Your task to perform on an android device: Open Google Maps Image 0: 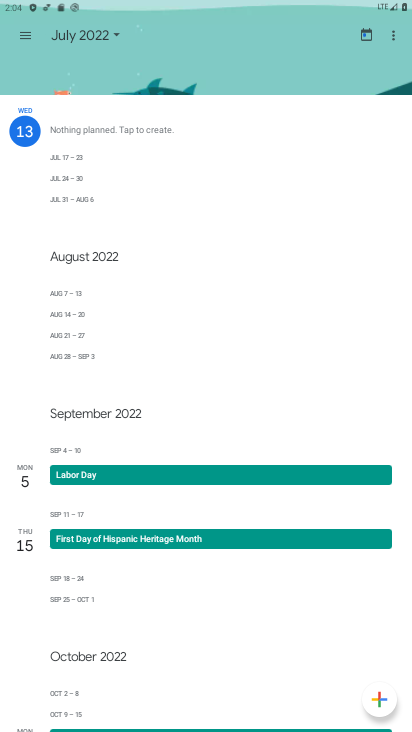
Step 0: press home button
Your task to perform on an android device: Open Google Maps Image 1: 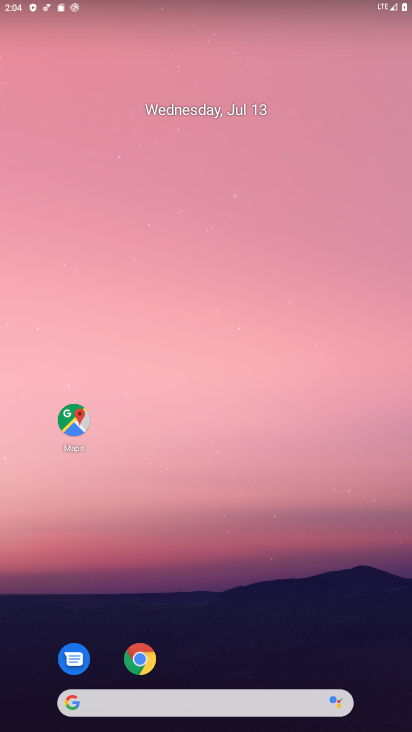
Step 1: click (73, 421)
Your task to perform on an android device: Open Google Maps Image 2: 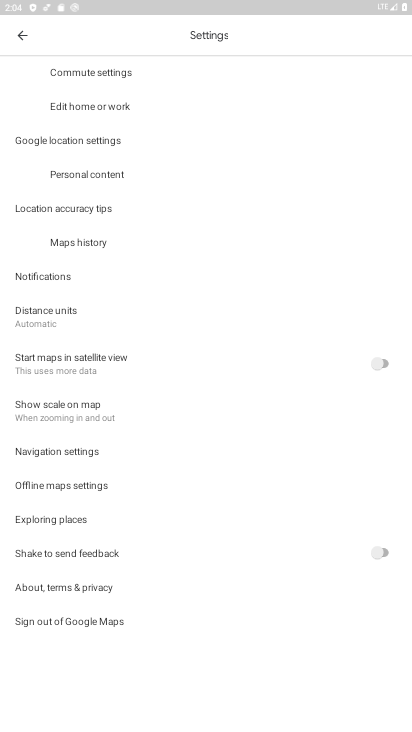
Step 2: task complete